Your task to perform on an android device: Open Yahoo.com Image 0: 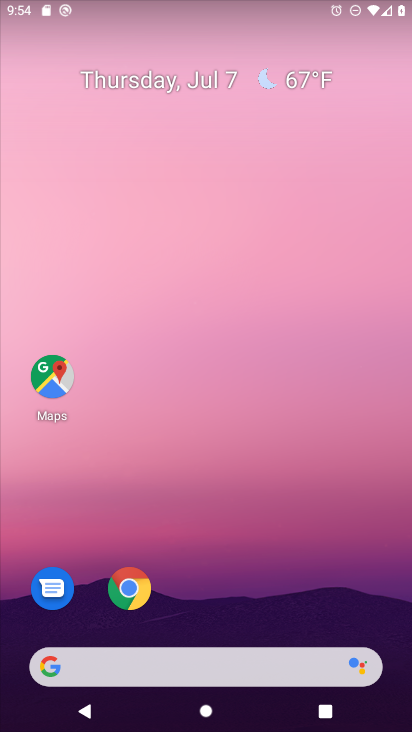
Step 0: click (131, 587)
Your task to perform on an android device: Open Yahoo.com Image 1: 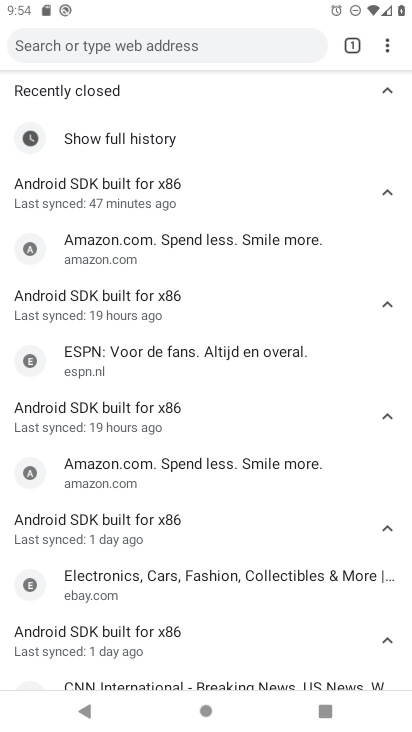
Step 1: click (184, 48)
Your task to perform on an android device: Open Yahoo.com Image 2: 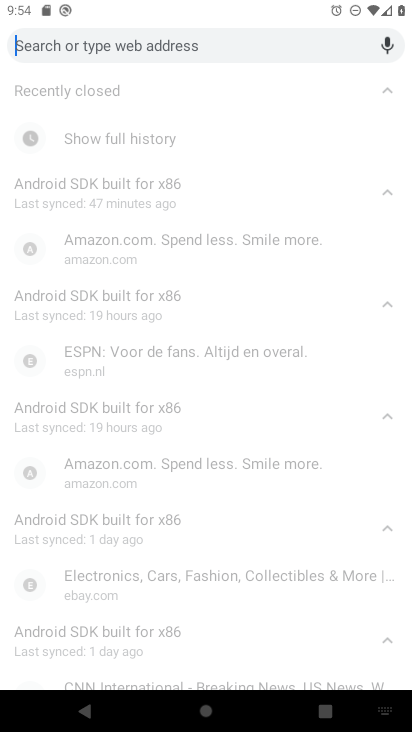
Step 2: type "Yahoo.com"
Your task to perform on an android device: Open Yahoo.com Image 3: 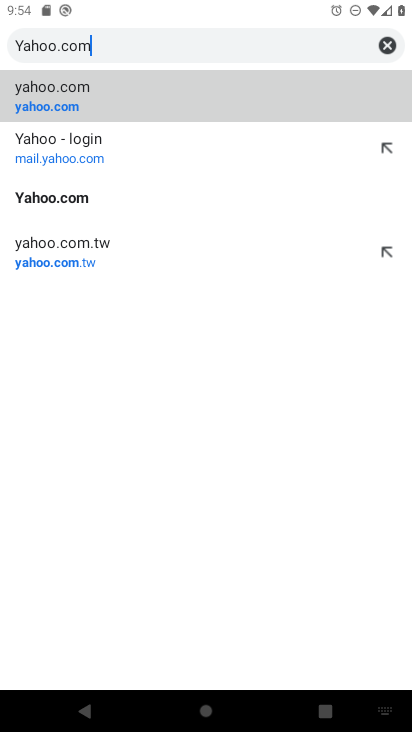
Step 3: click (81, 199)
Your task to perform on an android device: Open Yahoo.com Image 4: 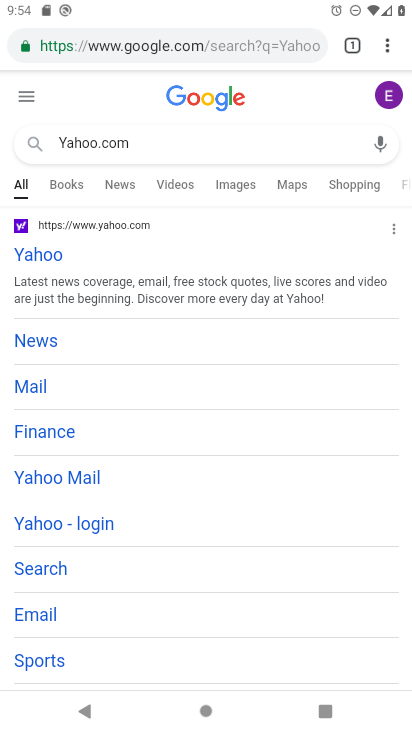
Step 4: click (48, 256)
Your task to perform on an android device: Open Yahoo.com Image 5: 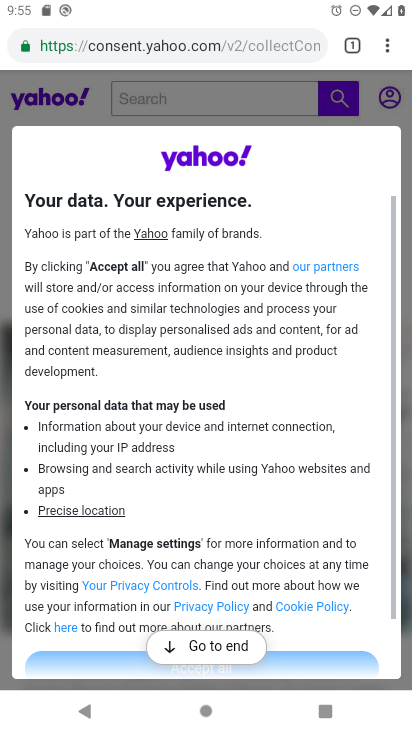
Step 5: click (213, 651)
Your task to perform on an android device: Open Yahoo.com Image 6: 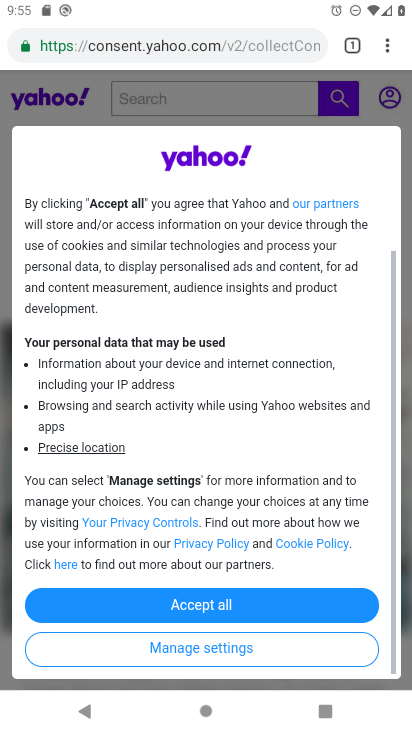
Step 6: click (229, 601)
Your task to perform on an android device: Open Yahoo.com Image 7: 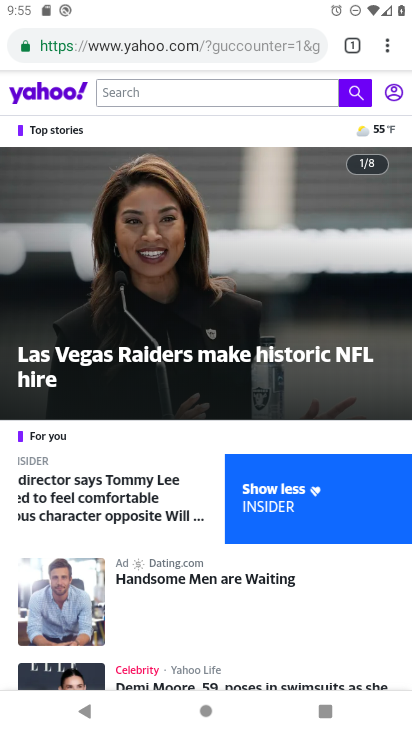
Step 7: task complete